Your task to perform on an android device: turn off notifications settings in the gmail app Image 0: 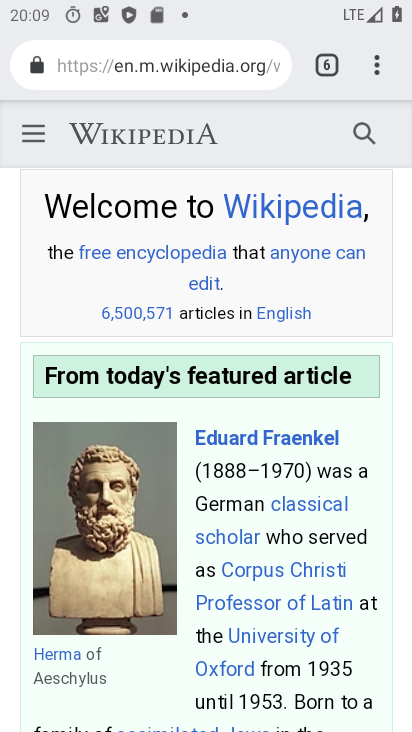
Step 0: task complete